Your task to perform on an android device: Is it going to rain today? Image 0: 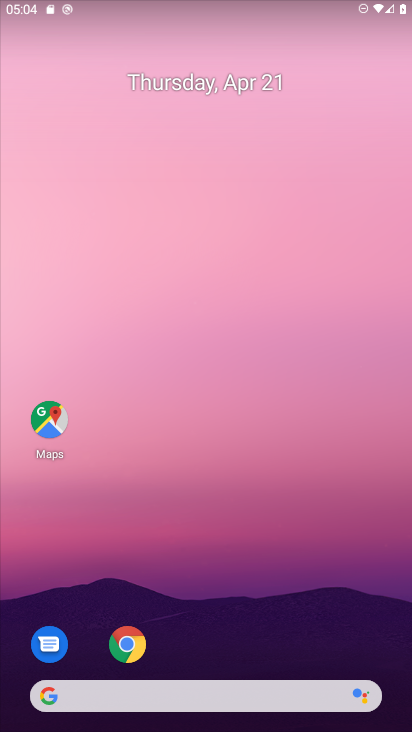
Step 0: drag from (265, 453) to (225, 64)
Your task to perform on an android device: Is it going to rain today? Image 1: 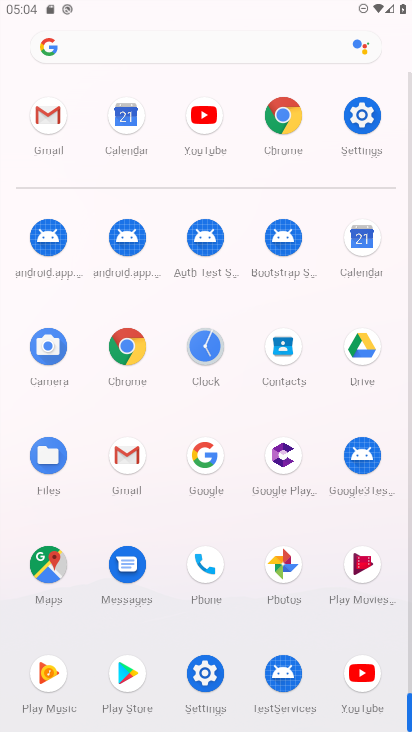
Step 1: click (282, 114)
Your task to perform on an android device: Is it going to rain today? Image 2: 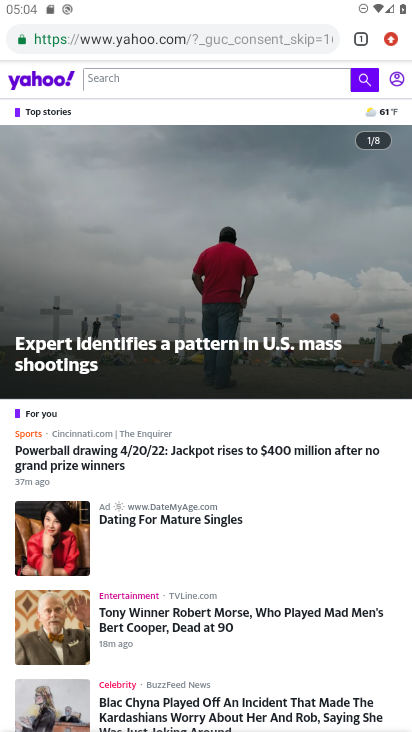
Step 2: click (221, 39)
Your task to perform on an android device: Is it going to rain today? Image 3: 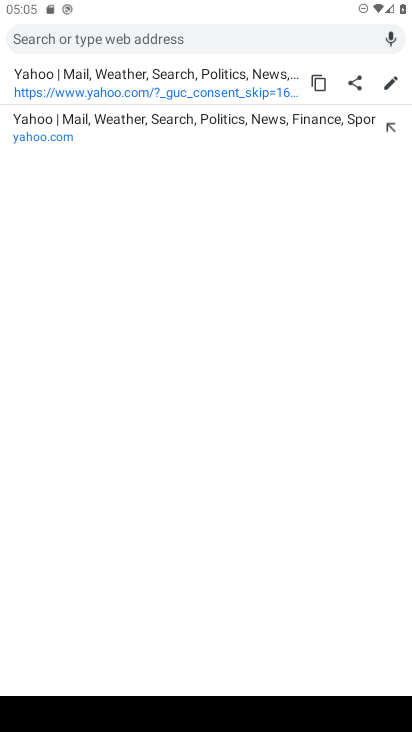
Step 3: type "weather"
Your task to perform on an android device: Is it going to rain today? Image 4: 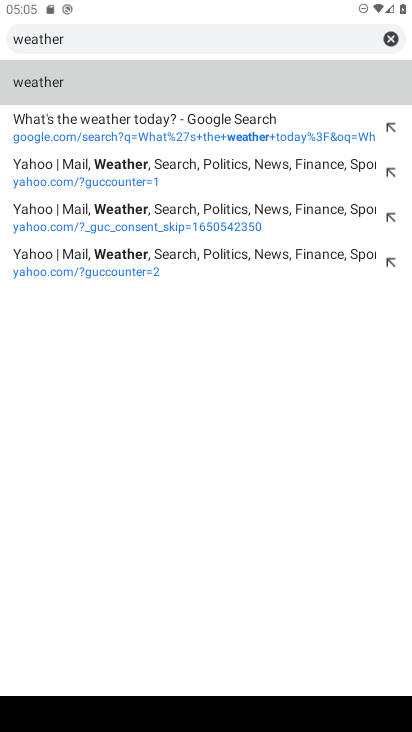
Step 4: click (64, 76)
Your task to perform on an android device: Is it going to rain today? Image 5: 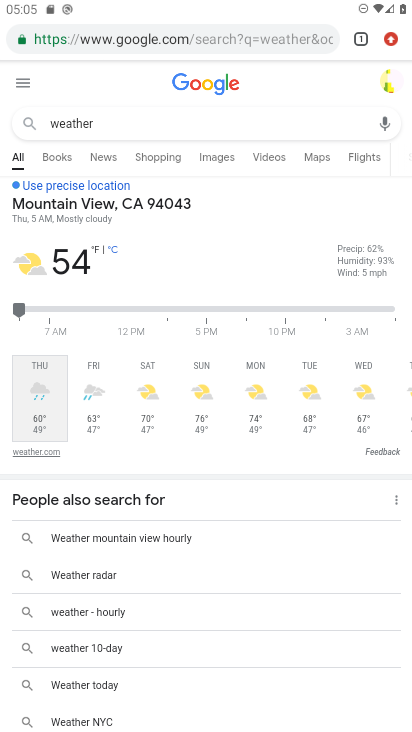
Step 5: task complete